Your task to perform on an android device: Empty the shopping cart on costco. Add beats solo 3 to the cart on costco Image 0: 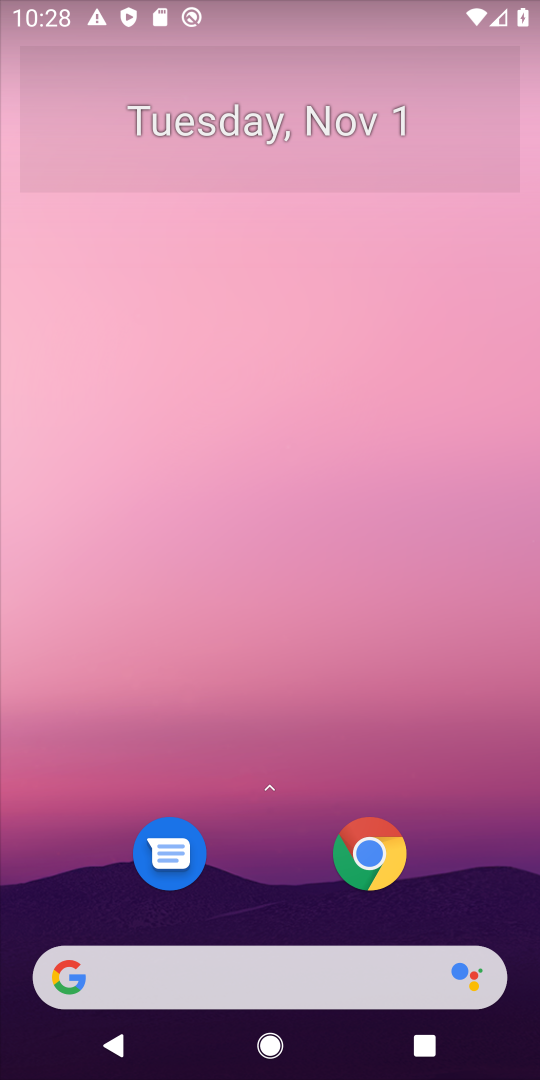
Step 0: task complete